Your task to perform on an android device: empty trash in google photos Image 0: 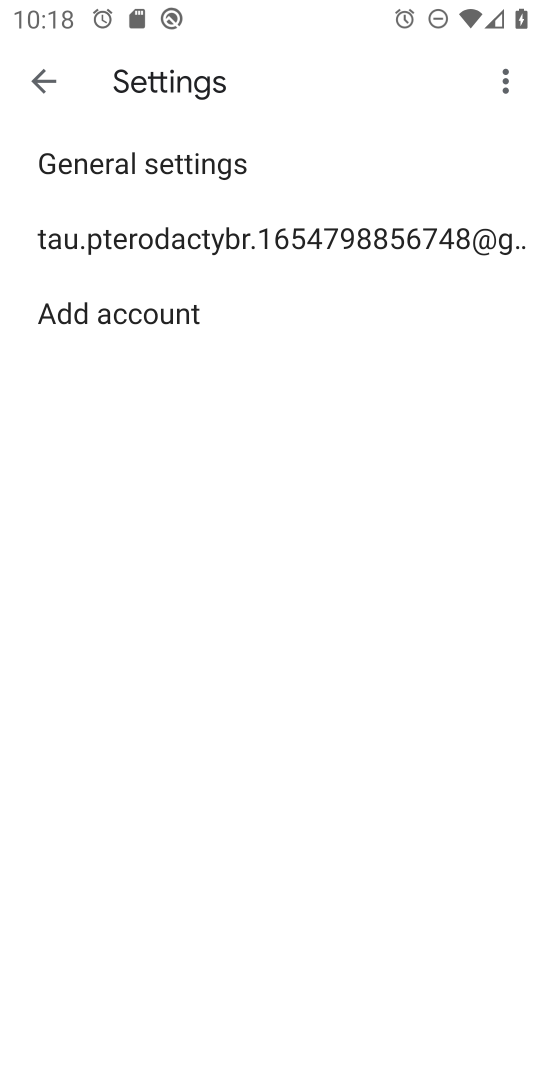
Step 0: press home button
Your task to perform on an android device: empty trash in google photos Image 1: 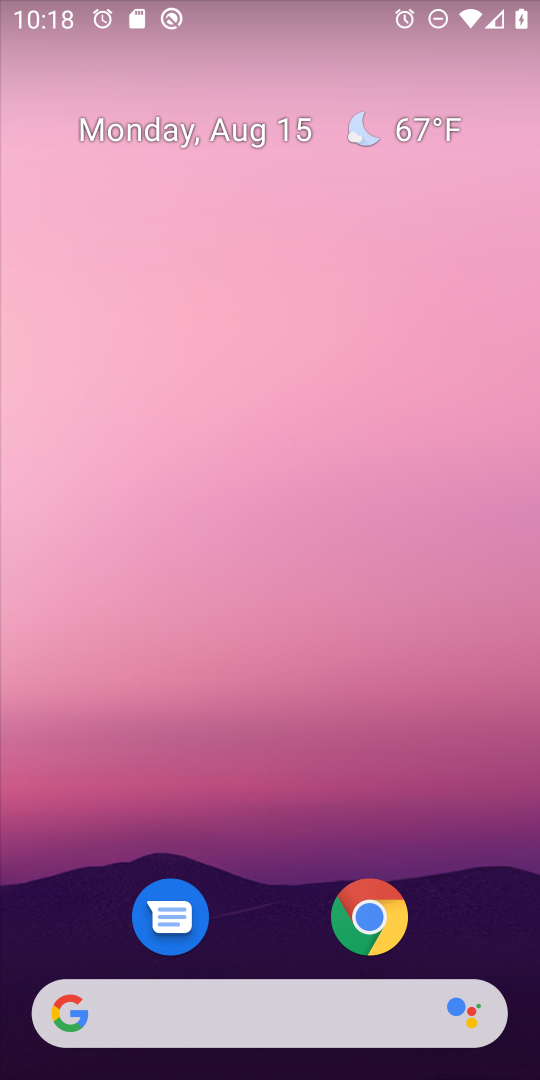
Step 1: drag from (228, 818) to (346, 11)
Your task to perform on an android device: empty trash in google photos Image 2: 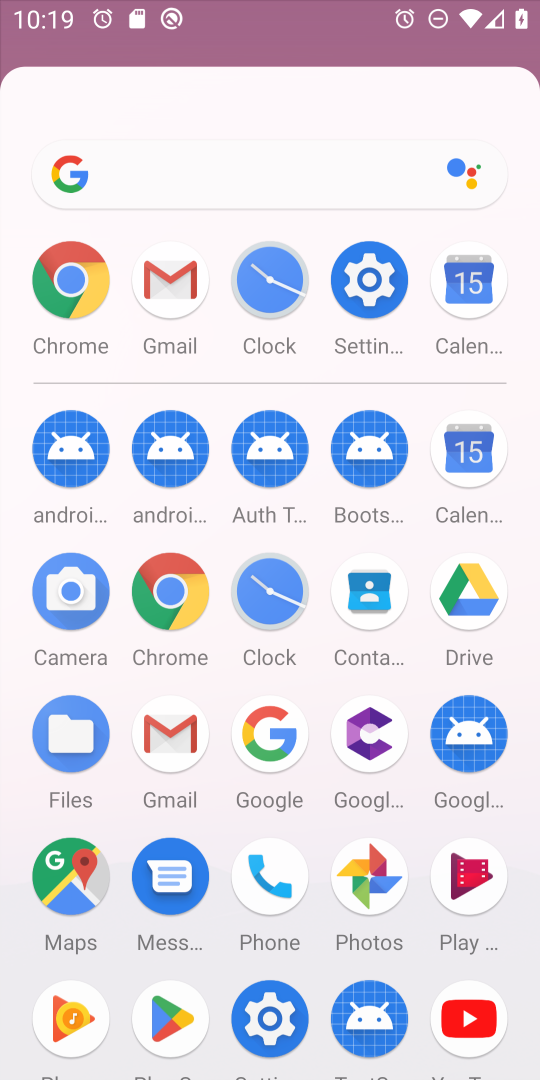
Step 2: drag from (302, 829) to (371, 14)
Your task to perform on an android device: empty trash in google photos Image 3: 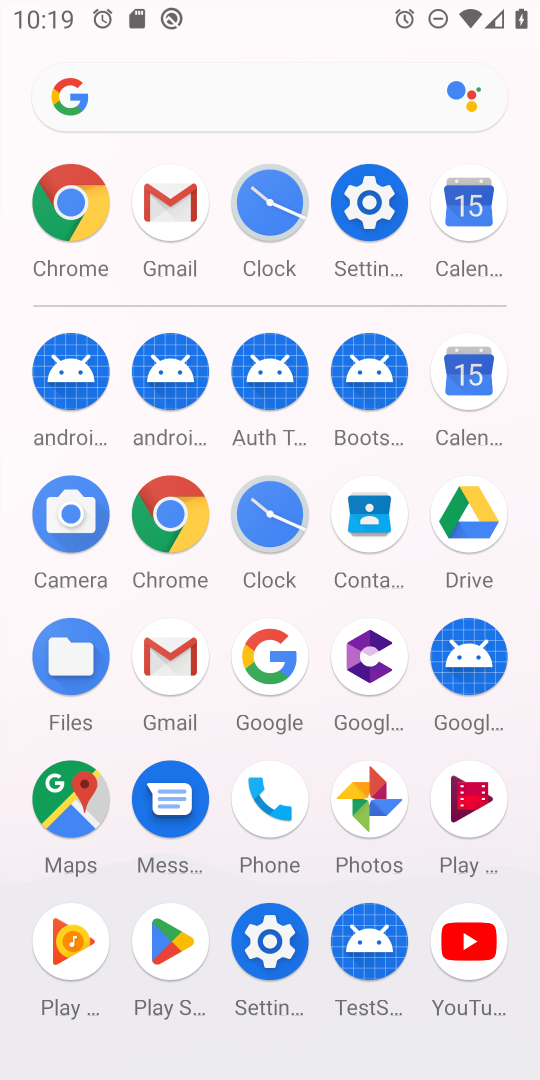
Step 3: click (367, 772)
Your task to perform on an android device: empty trash in google photos Image 4: 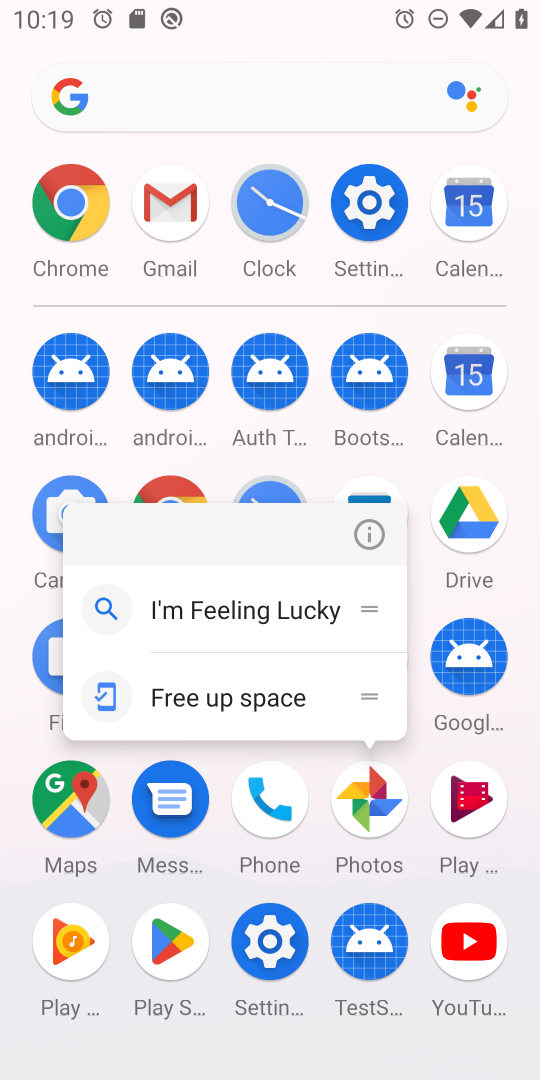
Step 4: click (356, 797)
Your task to perform on an android device: empty trash in google photos Image 5: 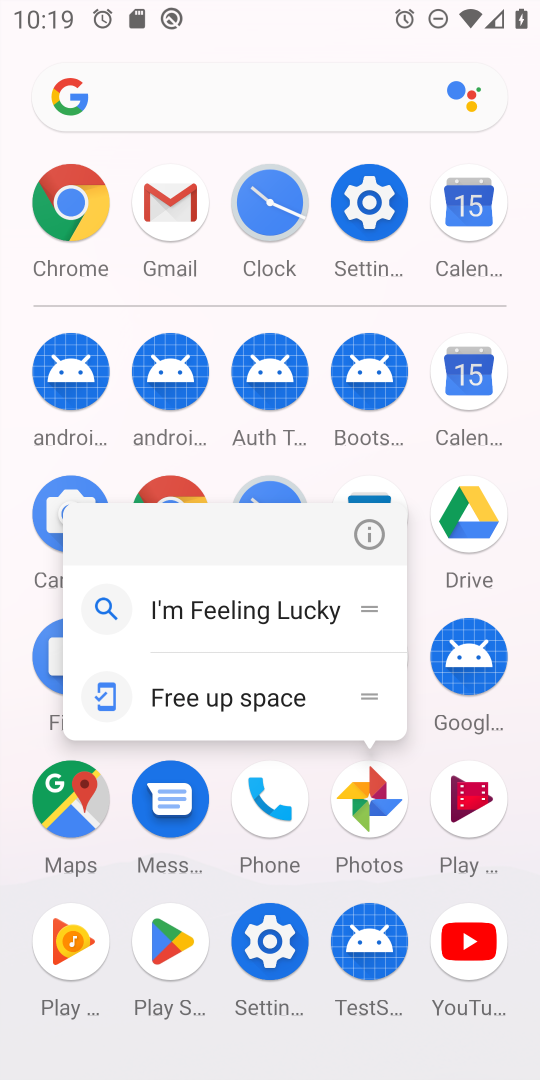
Step 5: click (360, 784)
Your task to perform on an android device: empty trash in google photos Image 6: 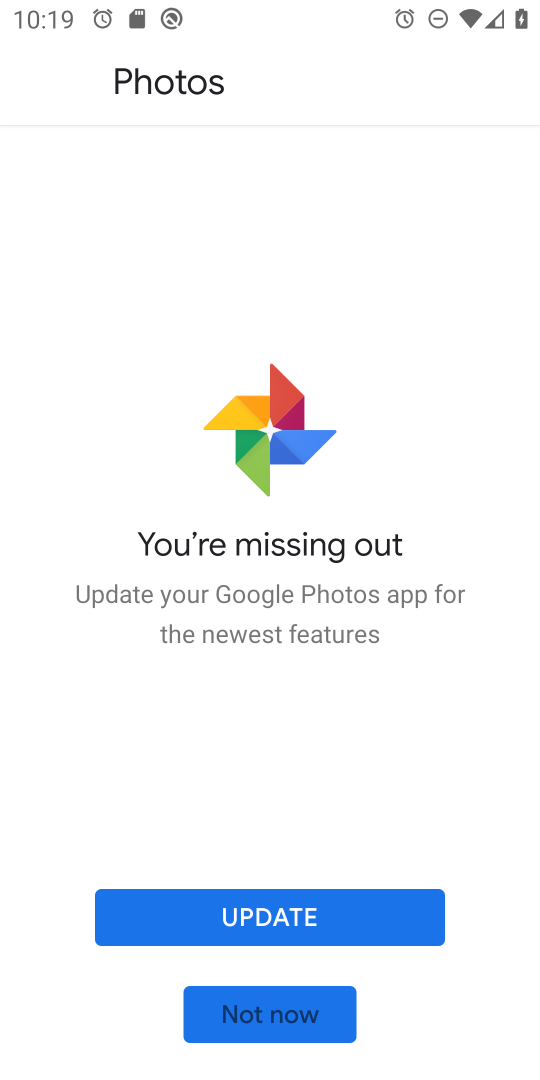
Step 6: click (305, 1007)
Your task to perform on an android device: empty trash in google photos Image 7: 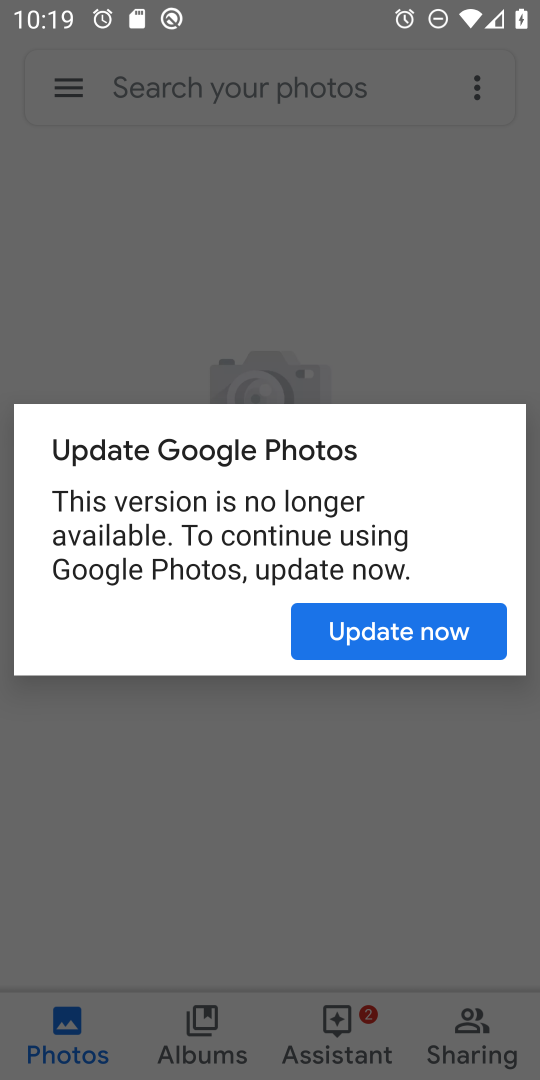
Step 7: click (460, 639)
Your task to perform on an android device: empty trash in google photos Image 8: 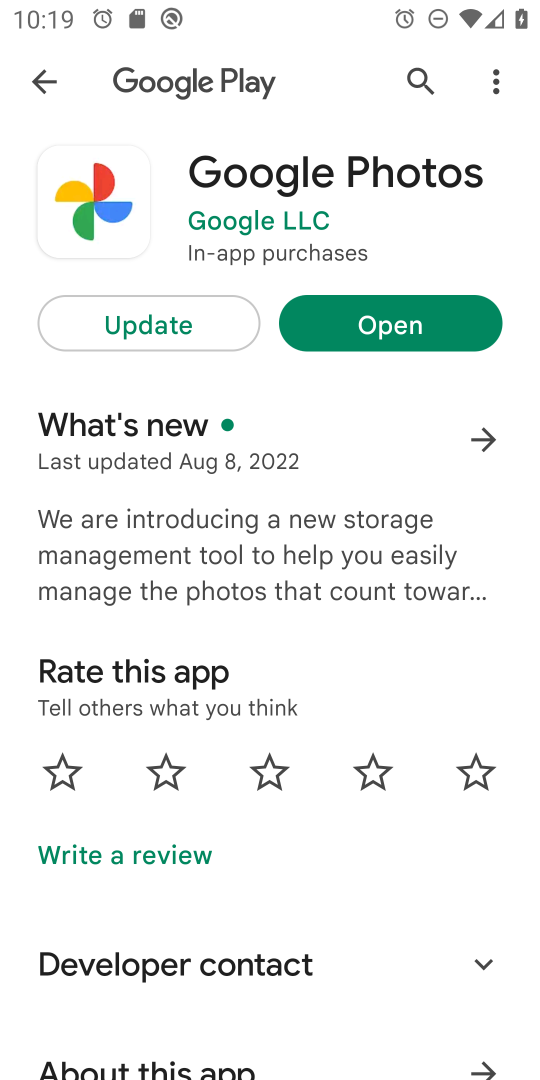
Step 8: click (451, 310)
Your task to perform on an android device: empty trash in google photos Image 9: 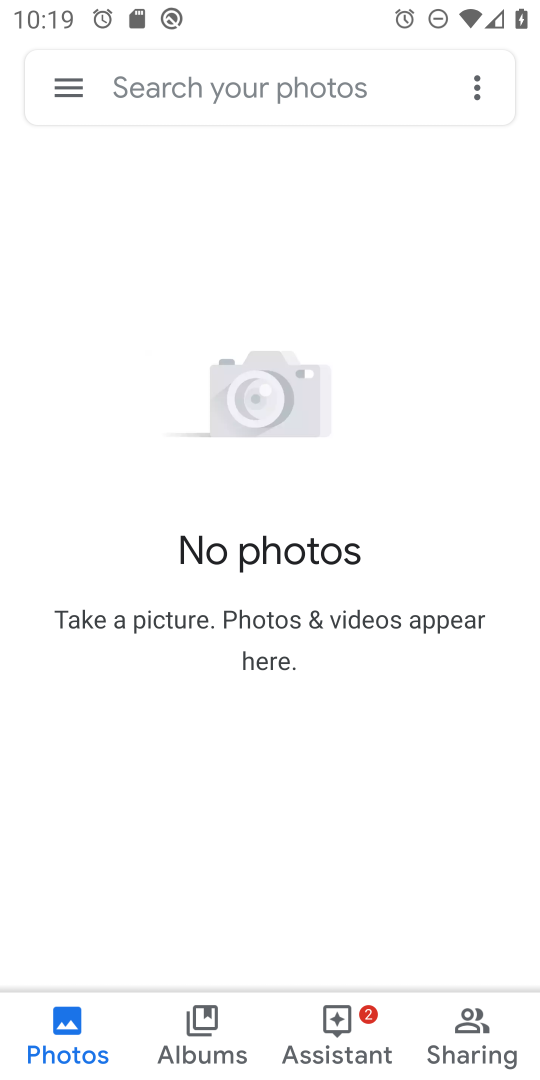
Step 9: click (60, 80)
Your task to perform on an android device: empty trash in google photos Image 10: 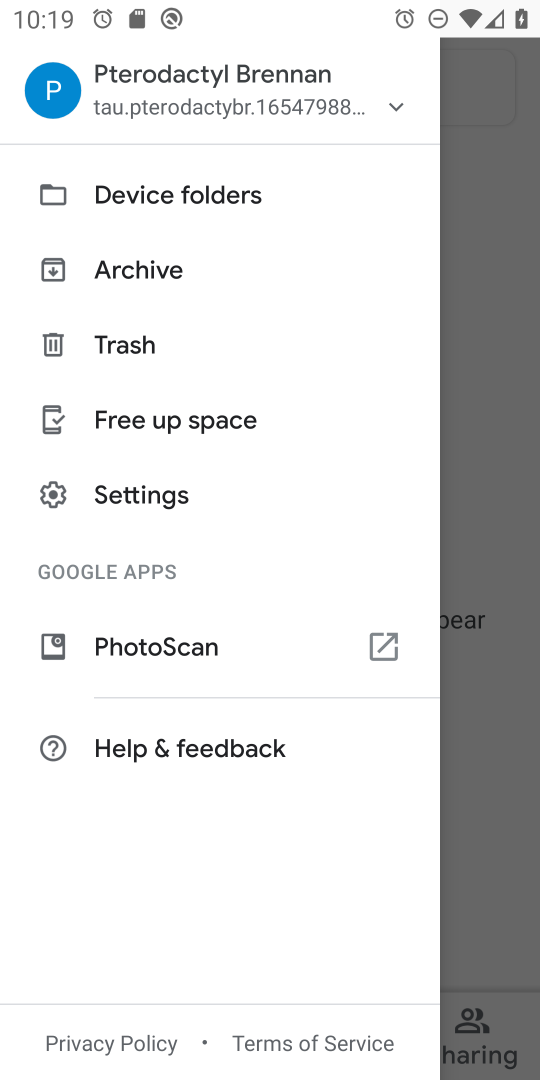
Step 10: click (97, 349)
Your task to perform on an android device: empty trash in google photos Image 11: 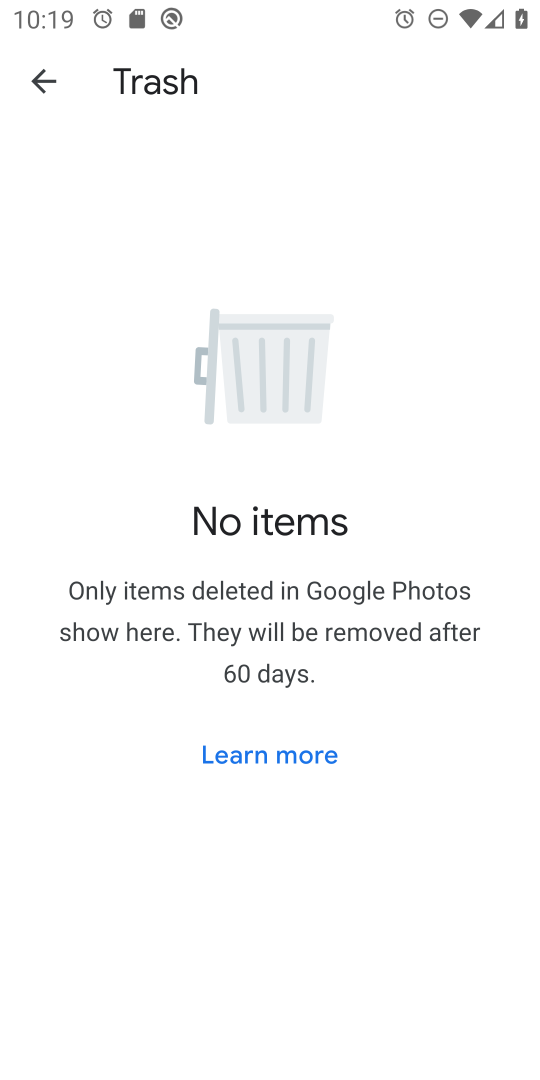
Step 11: task complete